Your task to perform on an android device: open a bookmark in the chrome app Image 0: 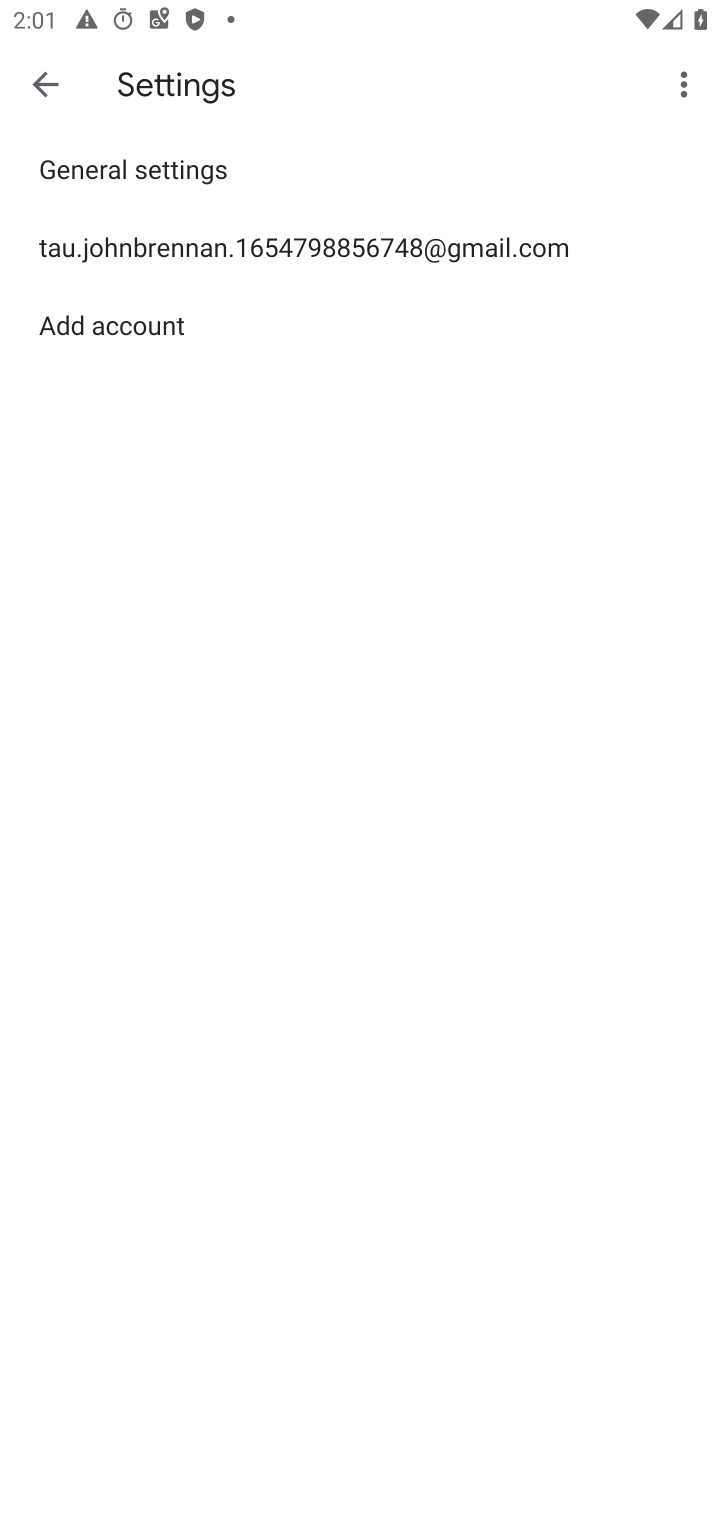
Step 0: press home button
Your task to perform on an android device: open a bookmark in the chrome app Image 1: 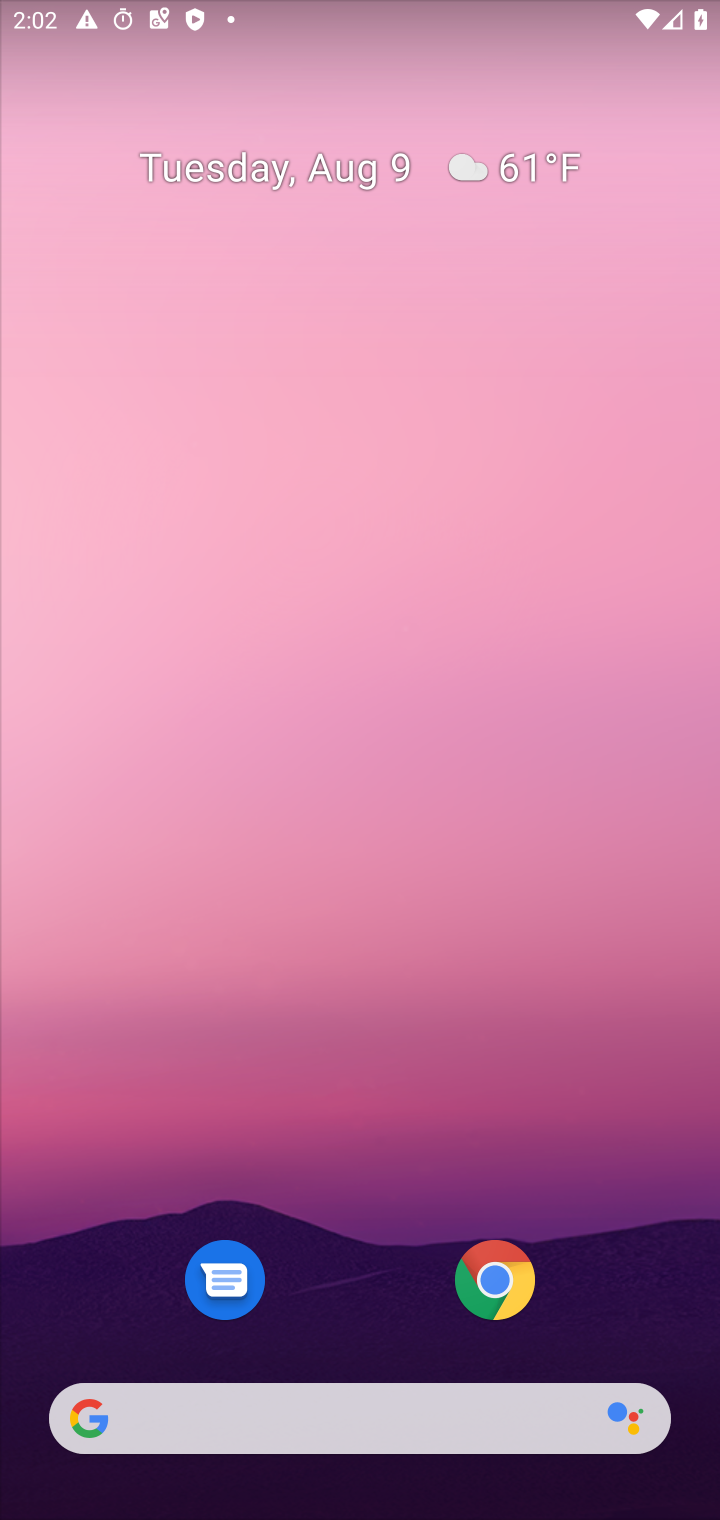
Step 1: click (497, 1289)
Your task to perform on an android device: open a bookmark in the chrome app Image 2: 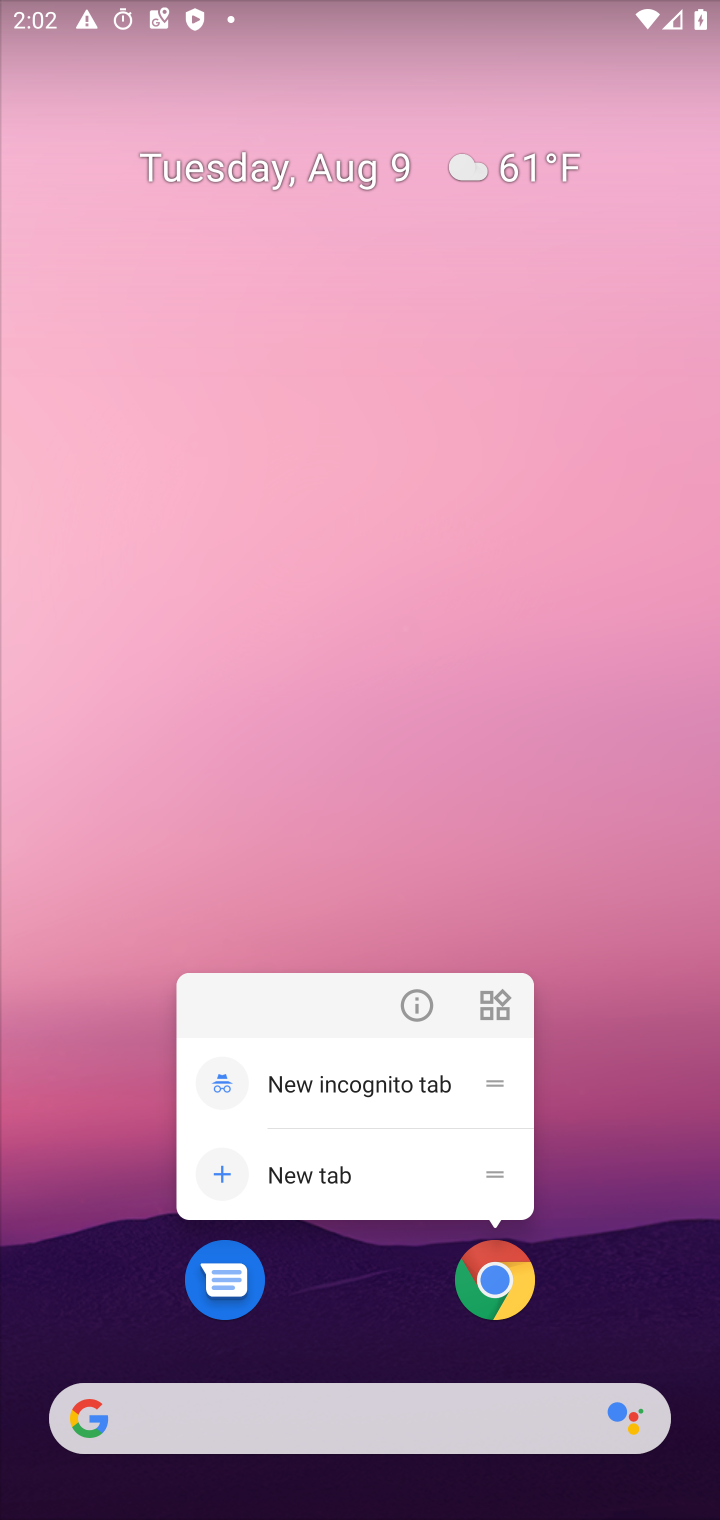
Step 2: click (487, 1281)
Your task to perform on an android device: open a bookmark in the chrome app Image 3: 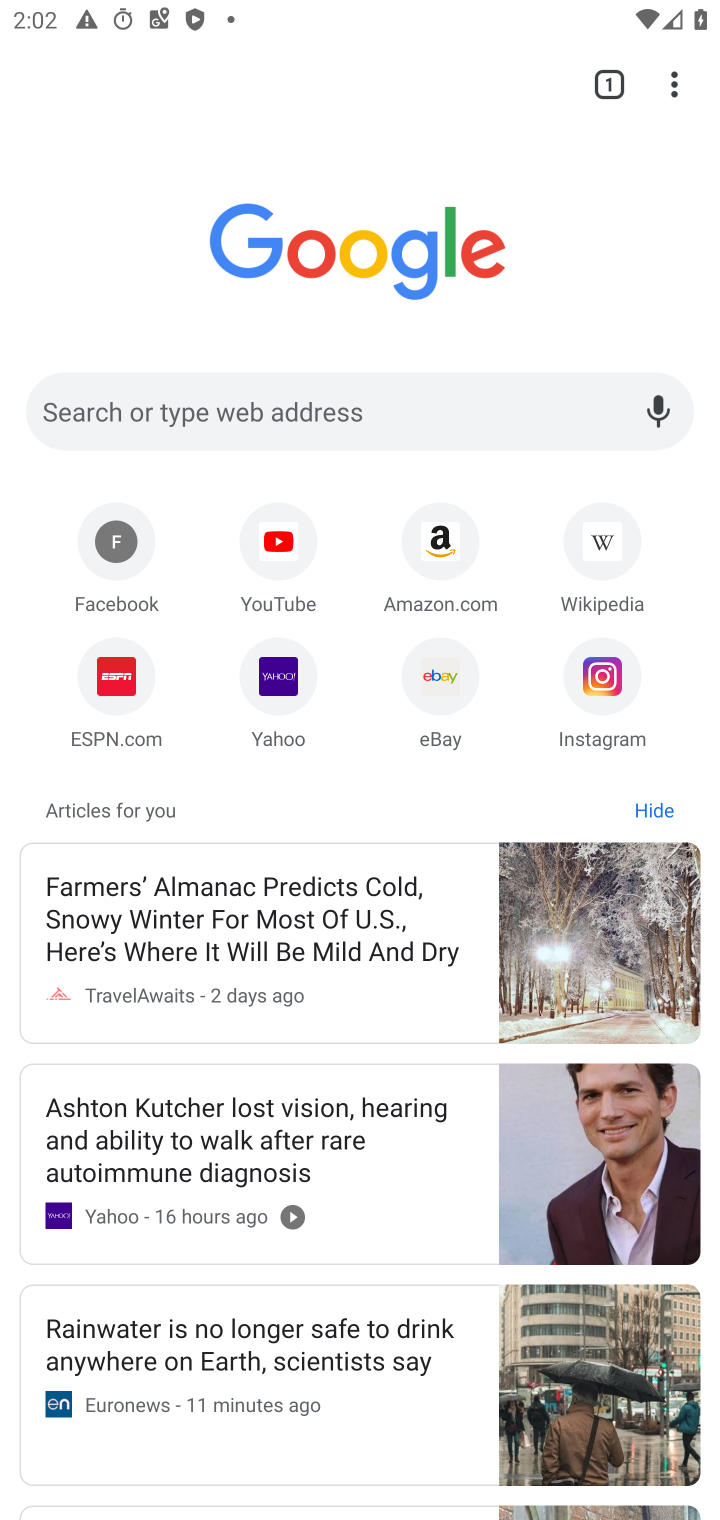
Step 3: task complete